Your task to perform on an android device: What's on my calendar today? Image 0: 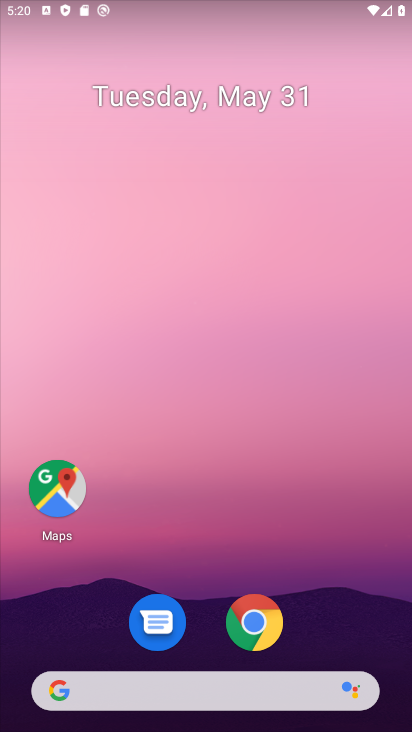
Step 0: press home button
Your task to perform on an android device: What's on my calendar today? Image 1: 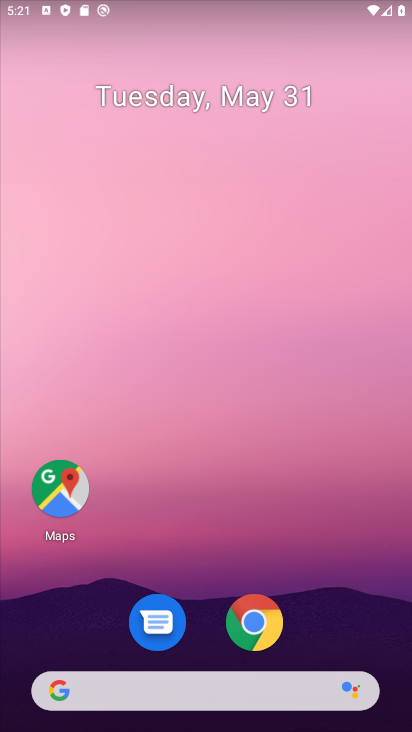
Step 1: drag from (302, 680) to (215, 65)
Your task to perform on an android device: What's on my calendar today? Image 2: 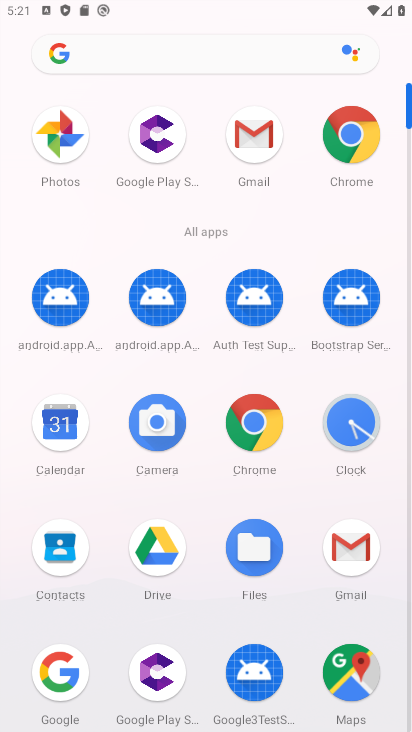
Step 2: click (67, 422)
Your task to perform on an android device: What's on my calendar today? Image 3: 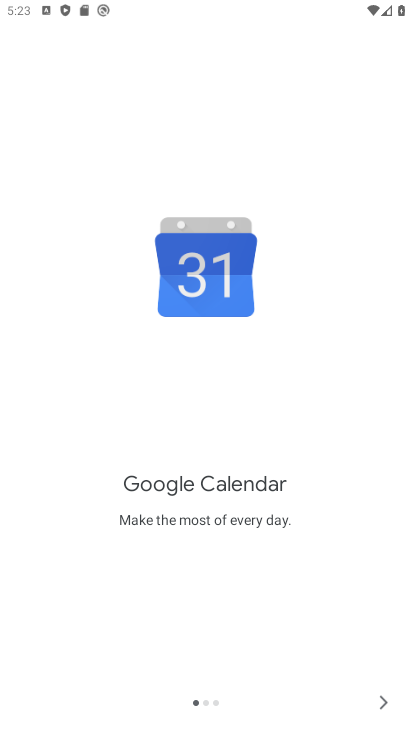
Step 3: click (385, 698)
Your task to perform on an android device: What's on my calendar today? Image 4: 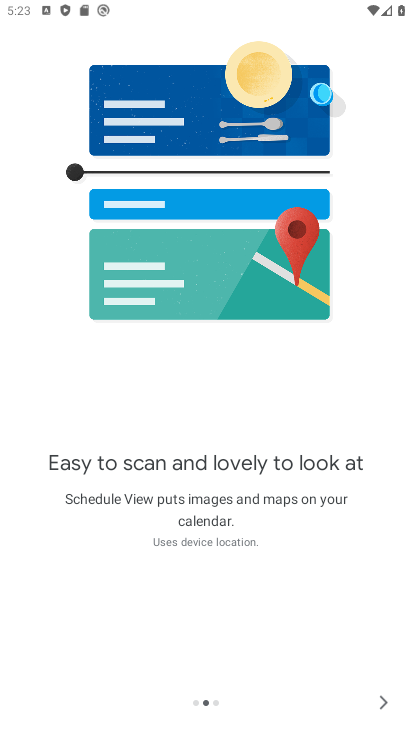
Step 4: click (385, 698)
Your task to perform on an android device: What's on my calendar today? Image 5: 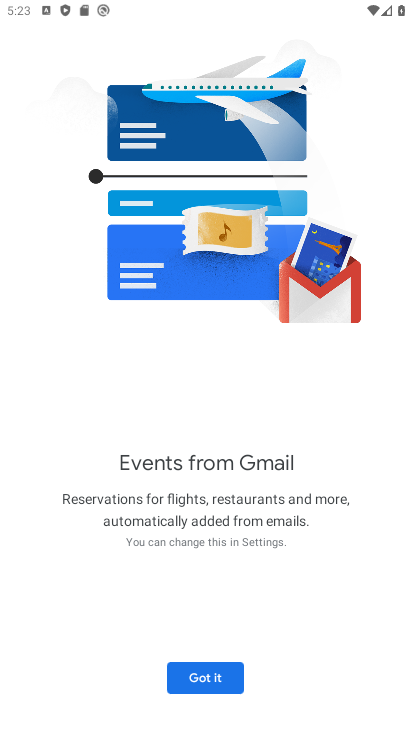
Step 5: click (385, 698)
Your task to perform on an android device: What's on my calendar today? Image 6: 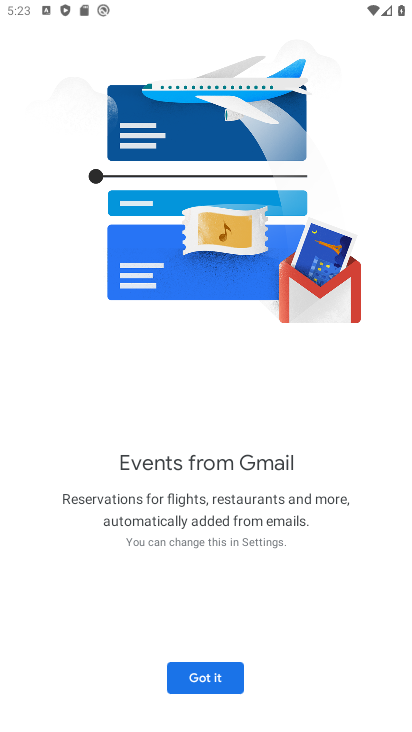
Step 6: click (188, 678)
Your task to perform on an android device: What's on my calendar today? Image 7: 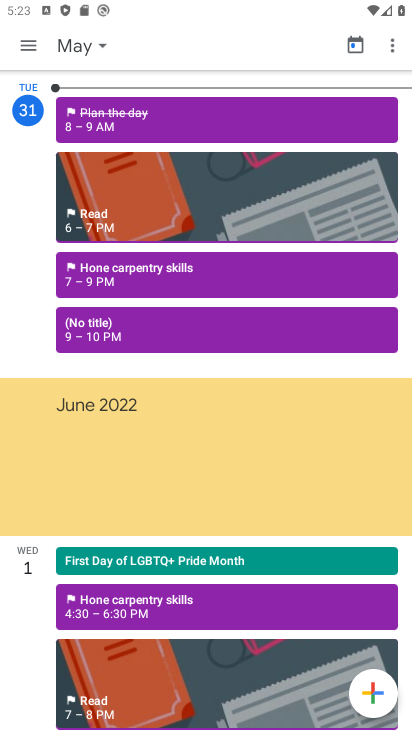
Step 7: task complete